Your task to perform on an android device: check android version Image 0: 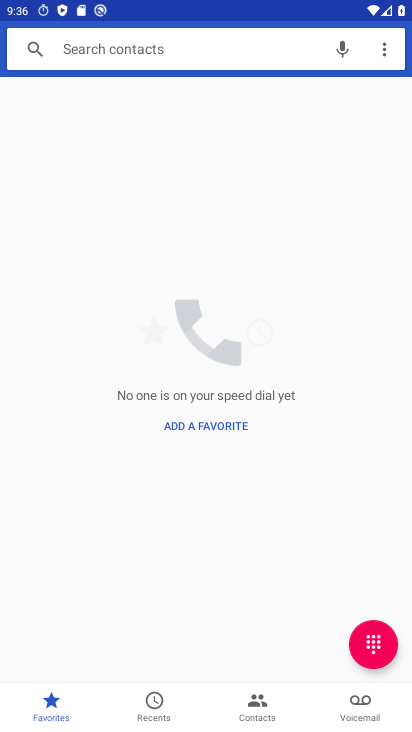
Step 0: press home button
Your task to perform on an android device: check android version Image 1: 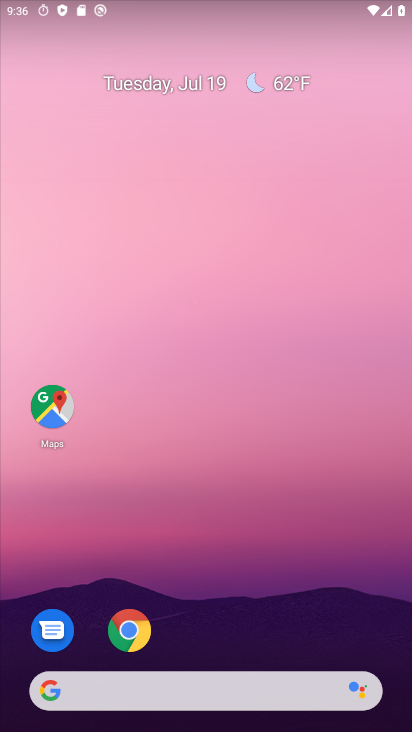
Step 1: drag from (179, 661) to (206, 263)
Your task to perform on an android device: check android version Image 2: 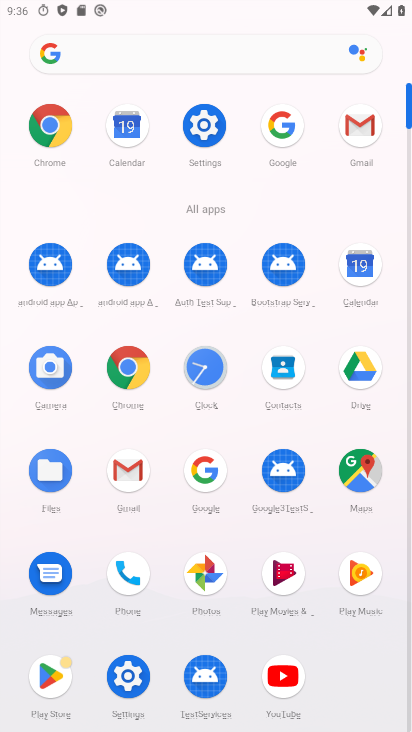
Step 2: click (138, 679)
Your task to perform on an android device: check android version Image 3: 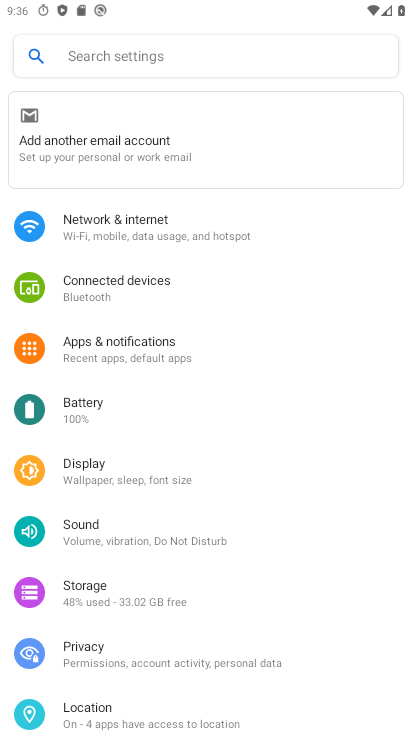
Step 3: drag from (122, 708) to (182, 271)
Your task to perform on an android device: check android version Image 4: 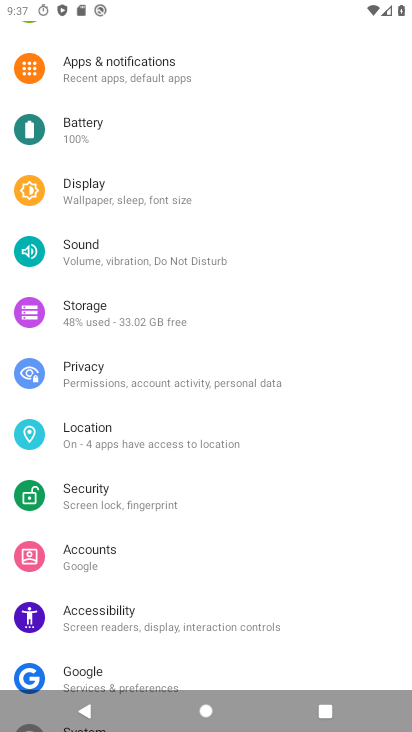
Step 4: drag from (109, 662) to (173, 203)
Your task to perform on an android device: check android version Image 5: 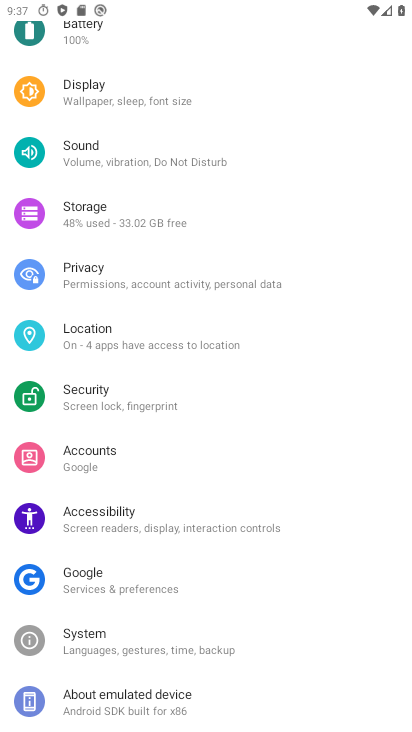
Step 5: click (69, 702)
Your task to perform on an android device: check android version Image 6: 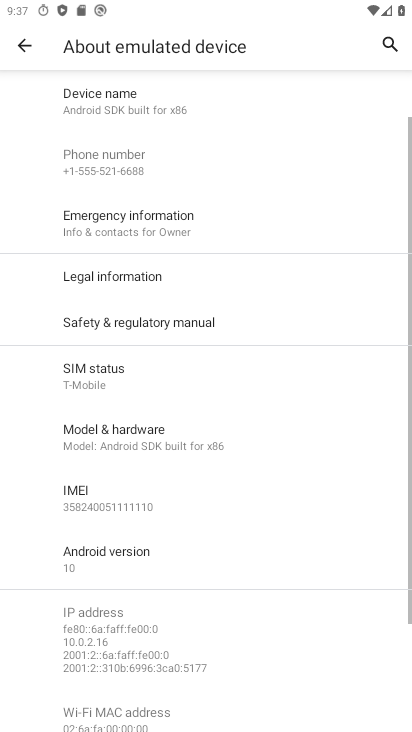
Step 6: click (111, 559)
Your task to perform on an android device: check android version Image 7: 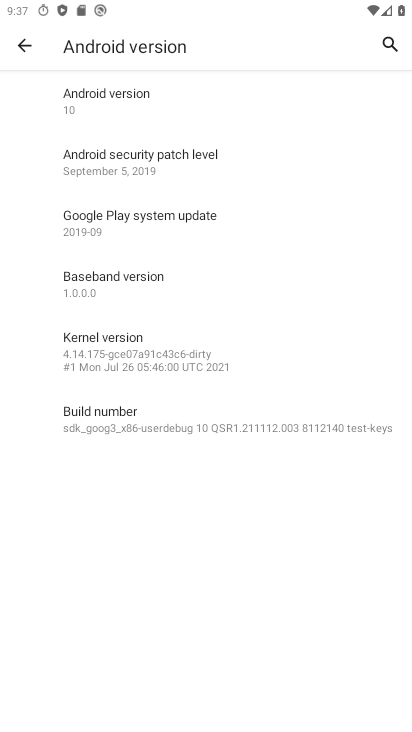
Step 7: task complete